Your task to perform on an android device: When is my next meeting? Image 0: 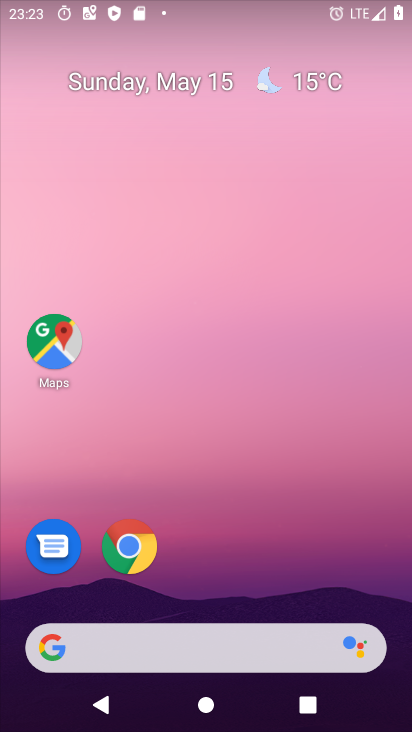
Step 0: drag from (259, 668) to (161, 34)
Your task to perform on an android device: When is my next meeting? Image 1: 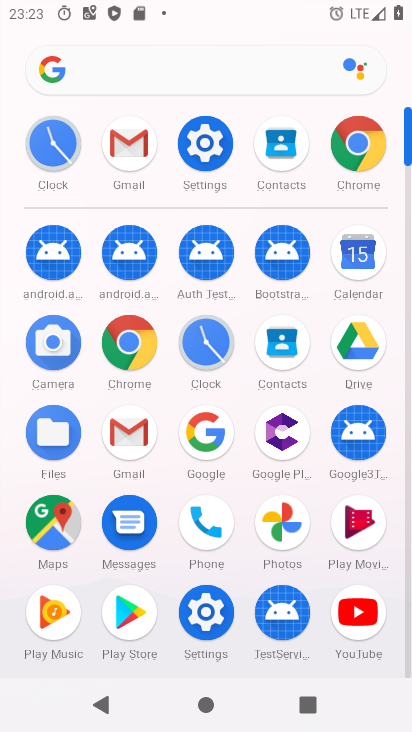
Step 1: click (358, 248)
Your task to perform on an android device: When is my next meeting? Image 2: 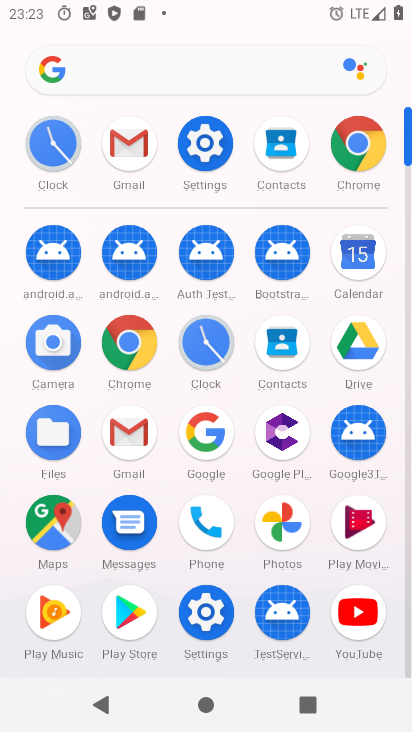
Step 2: click (364, 254)
Your task to perform on an android device: When is my next meeting? Image 3: 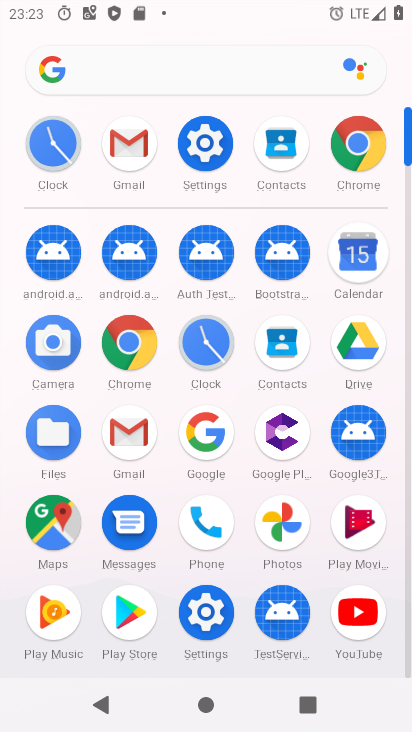
Step 3: click (363, 255)
Your task to perform on an android device: When is my next meeting? Image 4: 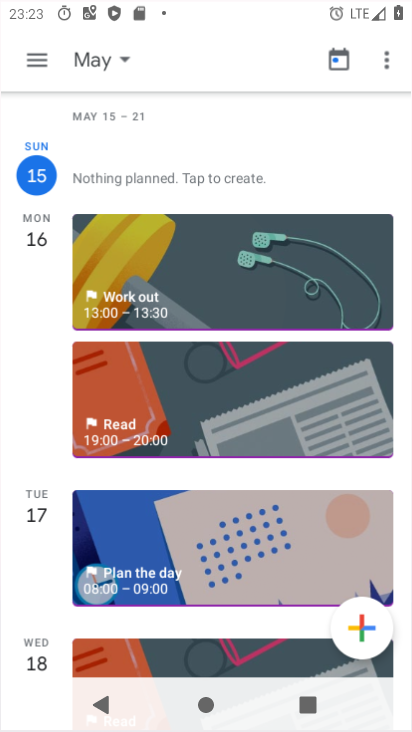
Step 4: click (363, 255)
Your task to perform on an android device: When is my next meeting? Image 5: 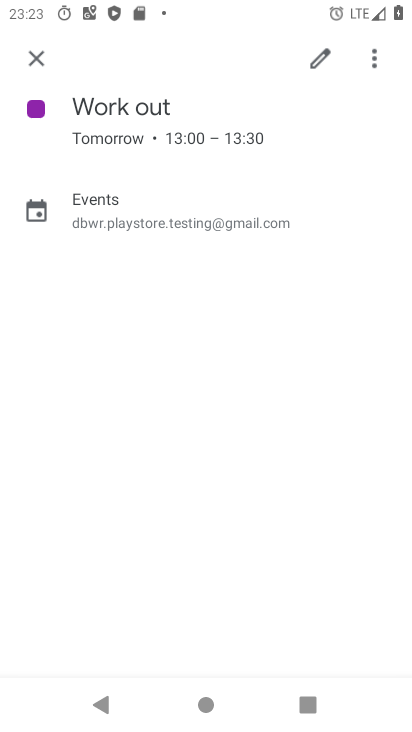
Step 5: click (37, 47)
Your task to perform on an android device: When is my next meeting? Image 6: 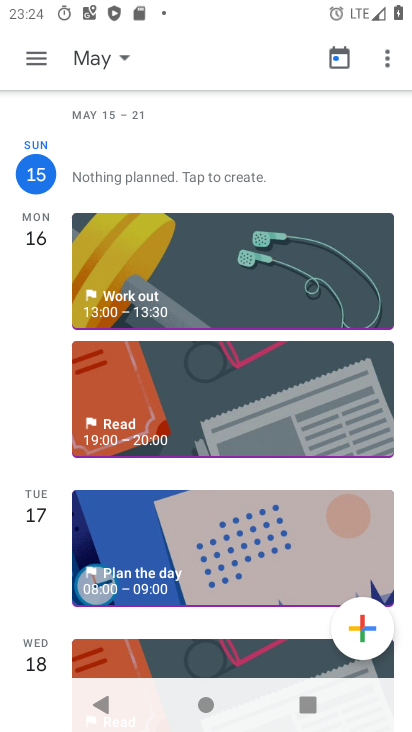
Step 6: drag from (172, 360) to (175, 75)
Your task to perform on an android device: When is my next meeting? Image 7: 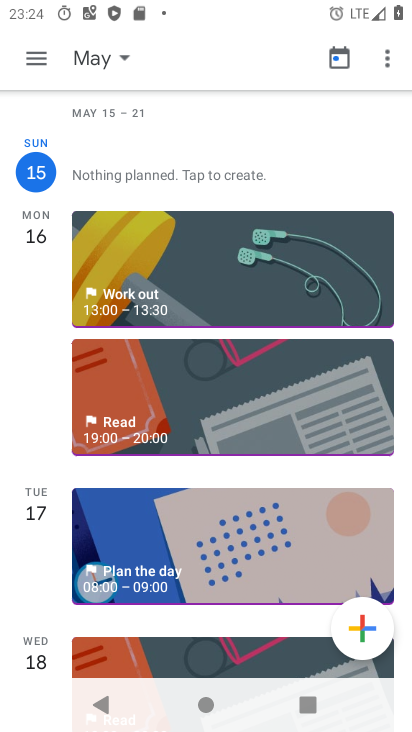
Step 7: drag from (117, 392) to (116, 233)
Your task to perform on an android device: When is my next meeting? Image 8: 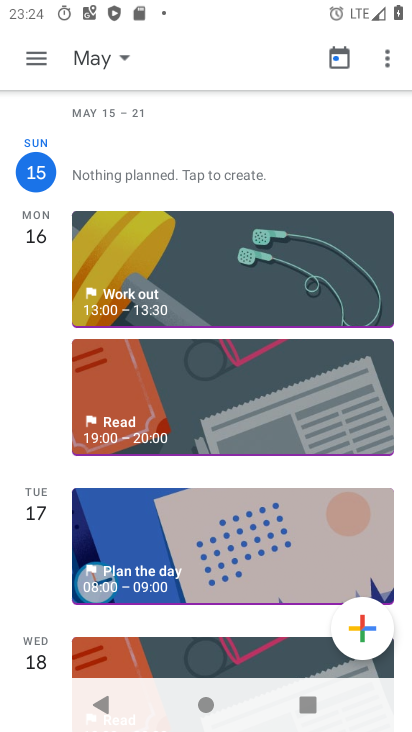
Step 8: drag from (176, 388) to (153, 200)
Your task to perform on an android device: When is my next meeting? Image 9: 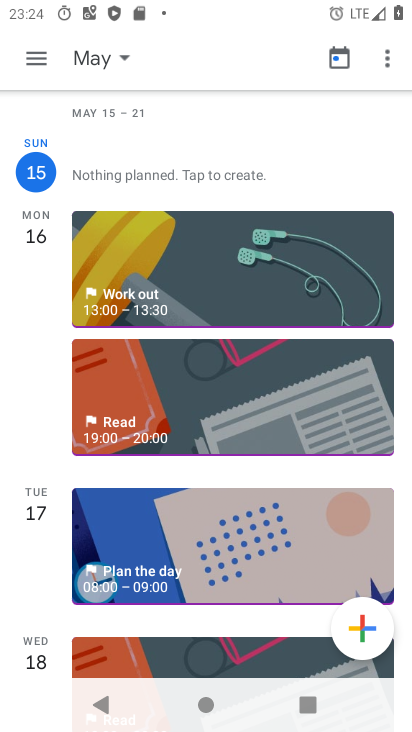
Step 9: click (132, 550)
Your task to perform on an android device: When is my next meeting? Image 10: 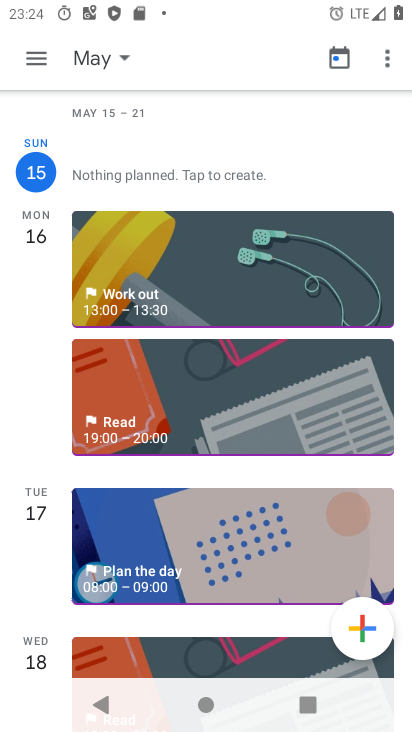
Step 10: click (132, 550)
Your task to perform on an android device: When is my next meeting? Image 11: 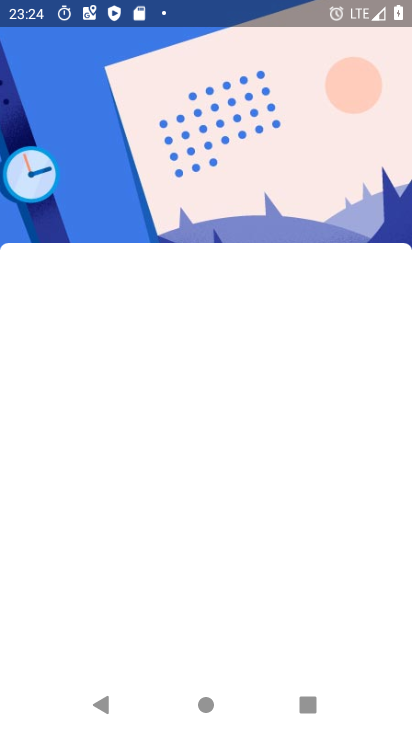
Step 11: click (154, 555)
Your task to perform on an android device: When is my next meeting? Image 12: 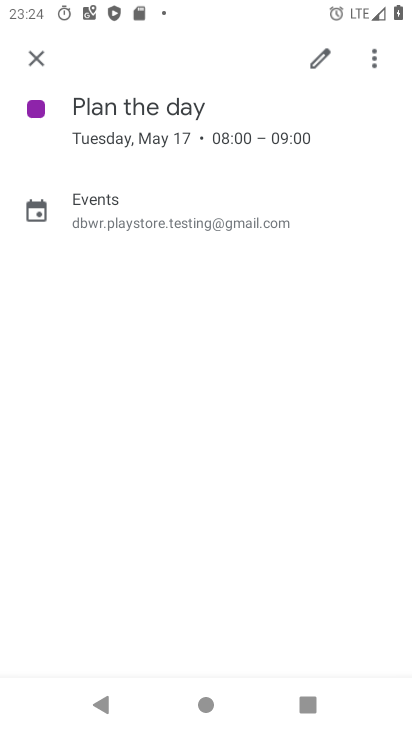
Step 12: task complete